Your task to perform on an android device: Go to network settings Image 0: 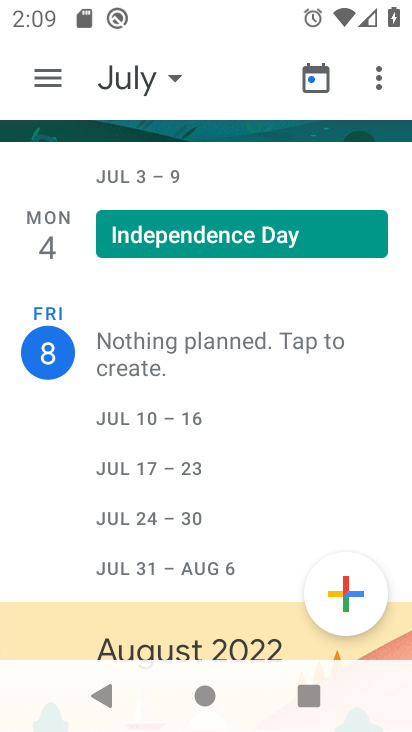
Step 0: press home button
Your task to perform on an android device: Go to network settings Image 1: 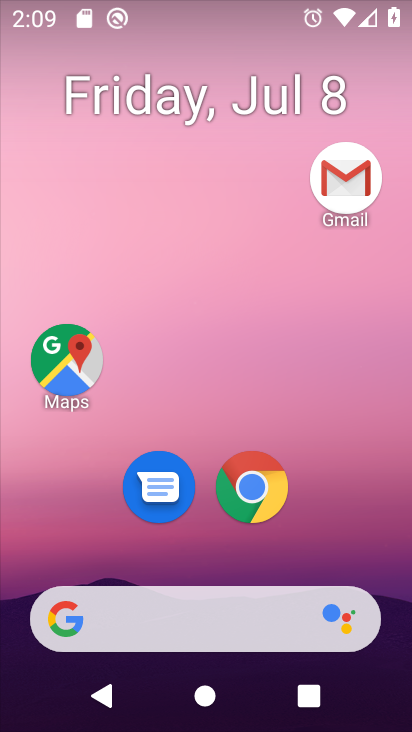
Step 1: drag from (348, 546) to (330, 131)
Your task to perform on an android device: Go to network settings Image 2: 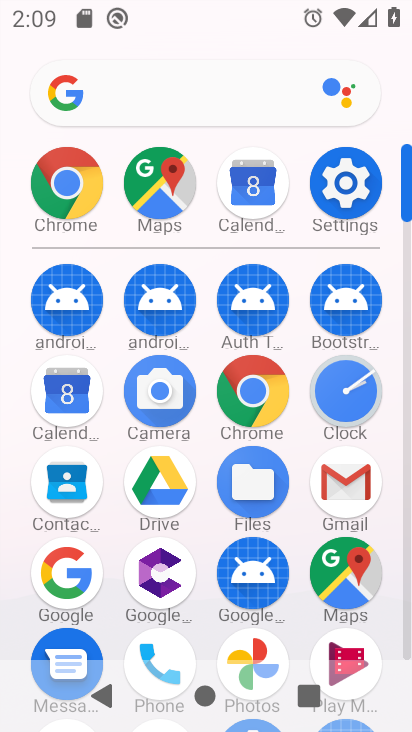
Step 2: click (348, 194)
Your task to perform on an android device: Go to network settings Image 3: 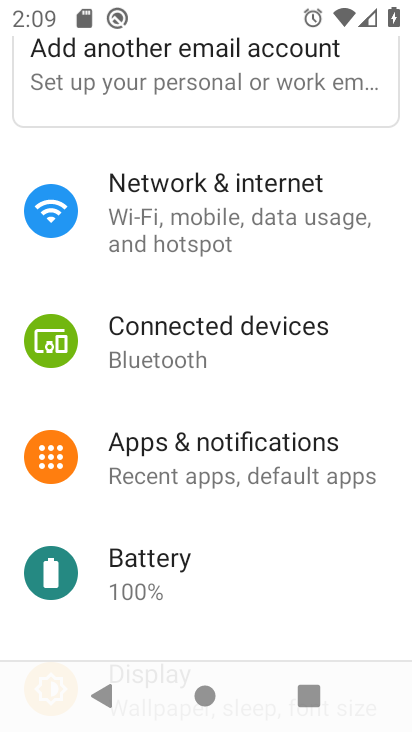
Step 3: drag from (341, 582) to (379, 385)
Your task to perform on an android device: Go to network settings Image 4: 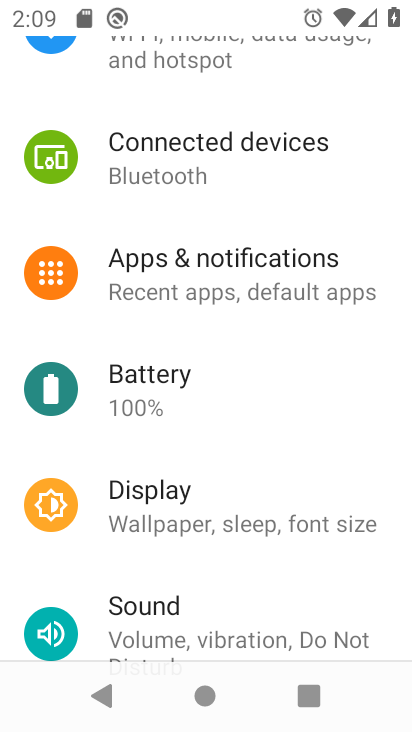
Step 4: drag from (337, 602) to (357, 443)
Your task to perform on an android device: Go to network settings Image 5: 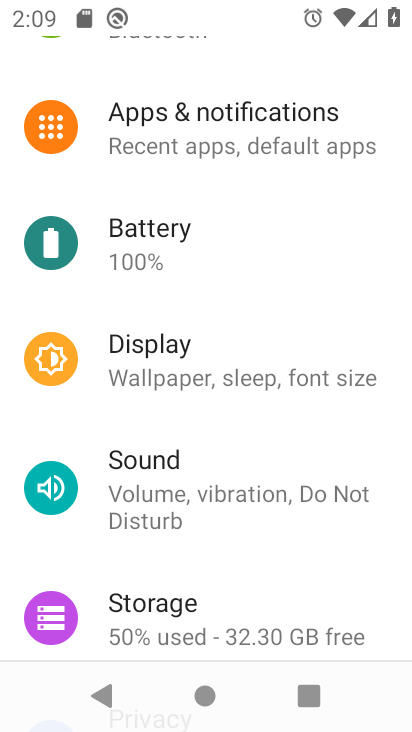
Step 5: drag from (331, 549) to (340, 407)
Your task to perform on an android device: Go to network settings Image 6: 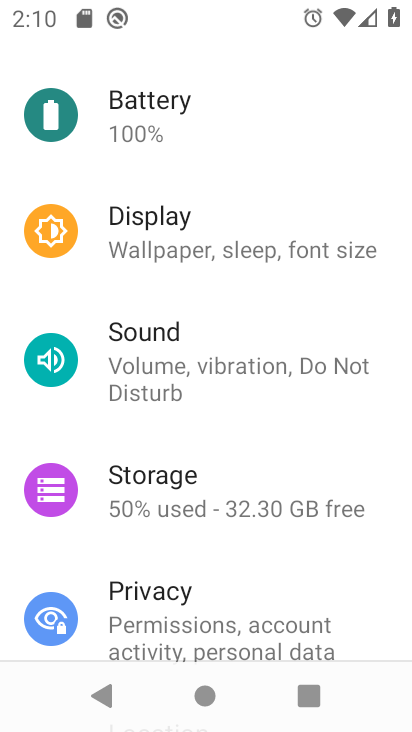
Step 6: drag from (379, 311) to (372, 434)
Your task to perform on an android device: Go to network settings Image 7: 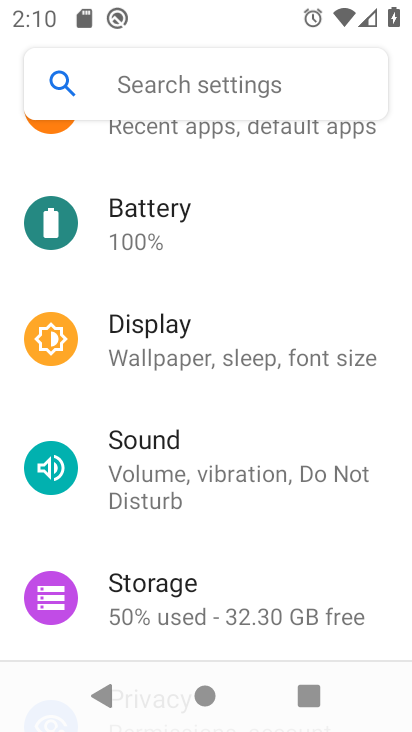
Step 7: drag from (366, 269) to (357, 404)
Your task to perform on an android device: Go to network settings Image 8: 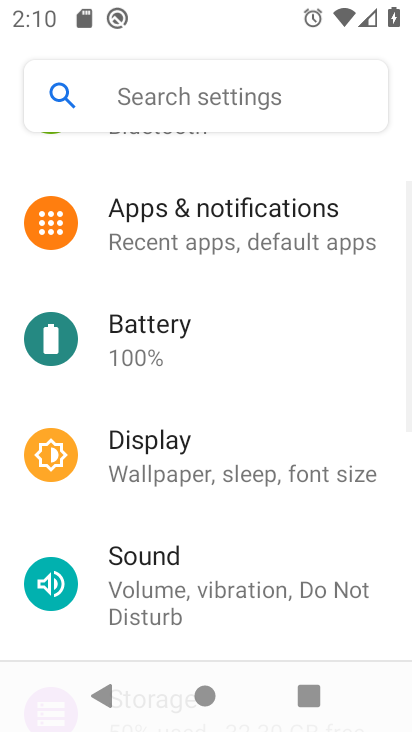
Step 8: drag from (352, 296) to (360, 425)
Your task to perform on an android device: Go to network settings Image 9: 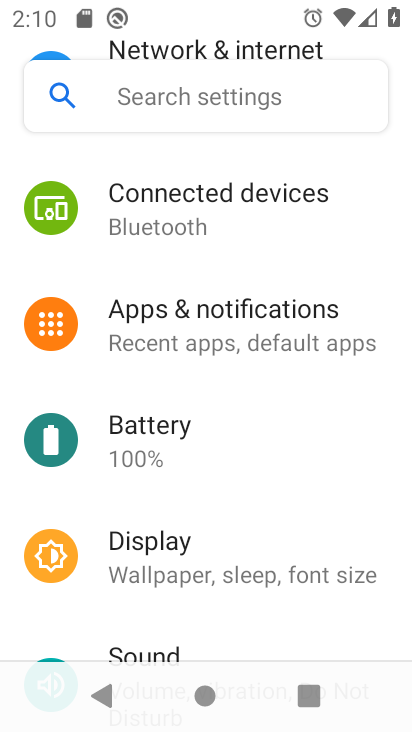
Step 9: drag from (369, 243) to (361, 399)
Your task to perform on an android device: Go to network settings Image 10: 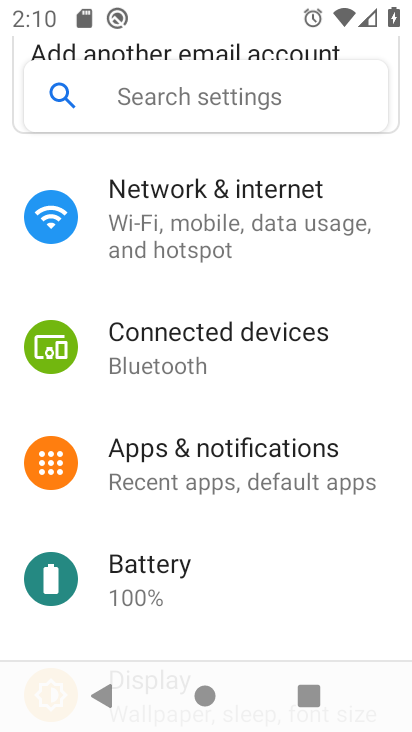
Step 10: drag from (376, 311) to (380, 496)
Your task to perform on an android device: Go to network settings Image 11: 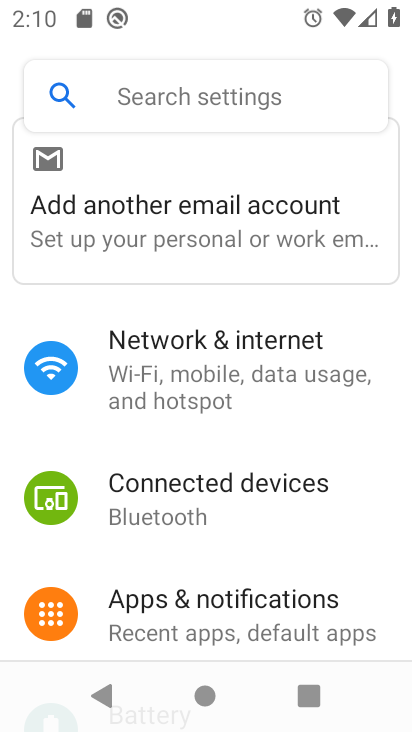
Step 11: drag from (356, 305) to (352, 467)
Your task to perform on an android device: Go to network settings Image 12: 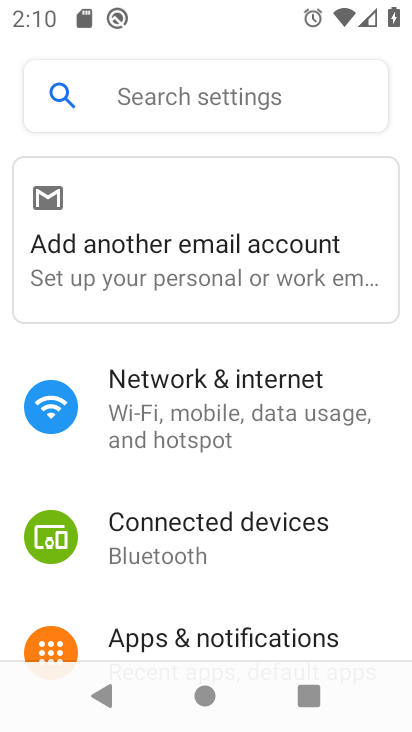
Step 12: click (294, 391)
Your task to perform on an android device: Go to network settings Image 13: 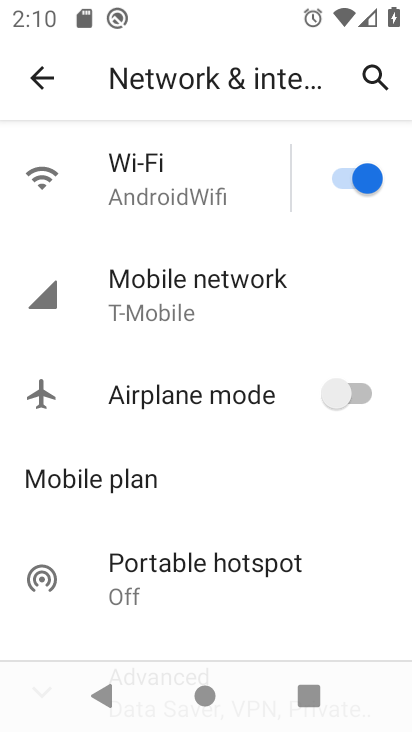
Step 13: task complete